Your task to perform on an android device: turn on notifications settings in the gmail app Image 0: 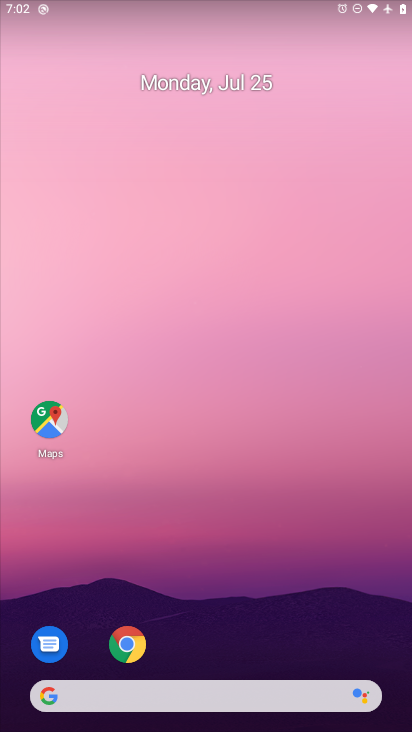
Step 0: press home button
Your task to perform on an android device: turn on notifications settings in the gmail app Image 1: 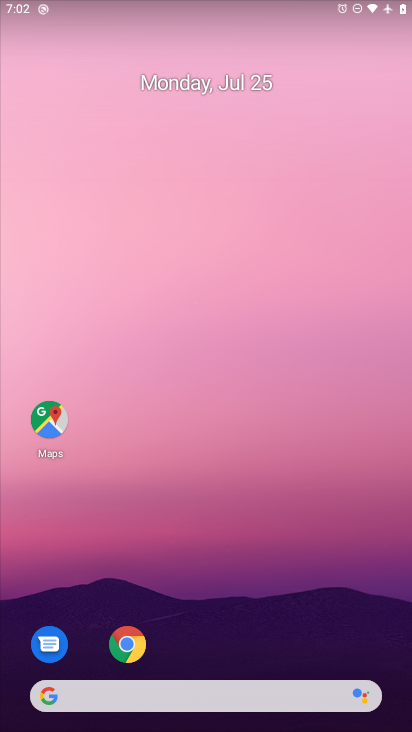
Step 1: drag from (246, 654) to (368, 113)
Your task to perform on an android device: turn on notifications settings in the gmail app Image 2: 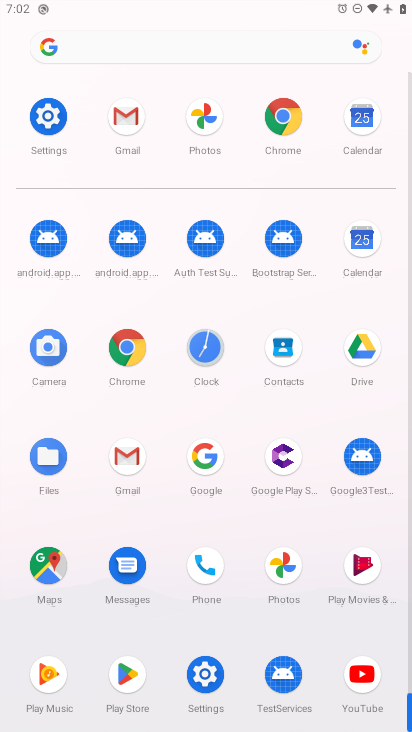
Step 2: click (118, 122)
Your task to perform on an android device: turn on notifications settings in the gmail app Image 3: 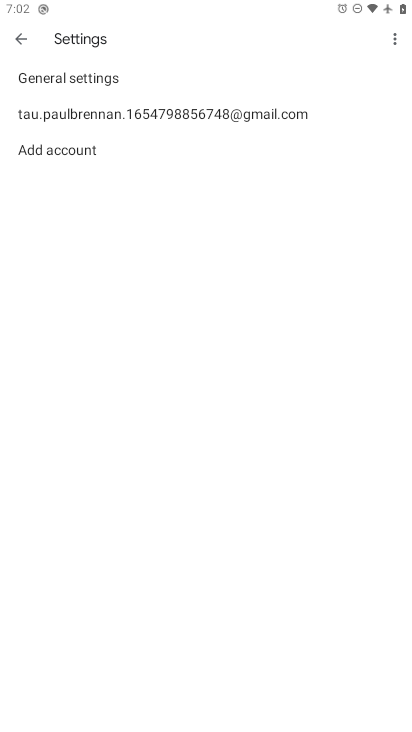
Step 3: click (60, 71)
Your task to perform on an android device: turn on notifications settings in the gmail app Image 4: 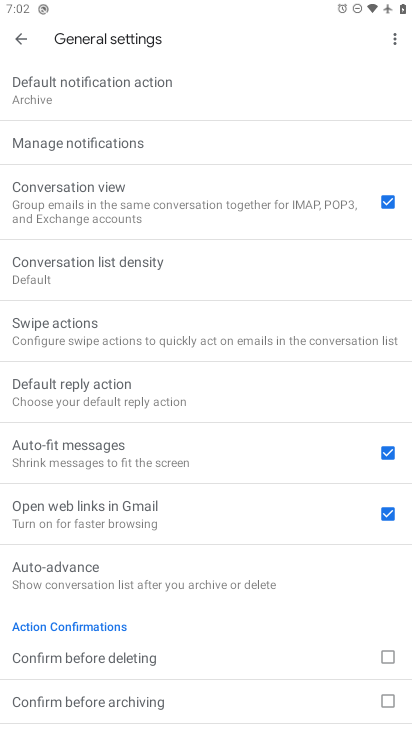
Step 4: click (87, 143)
Your task to perform on an android device: turn on notifications settings in the gmail app Image 5: 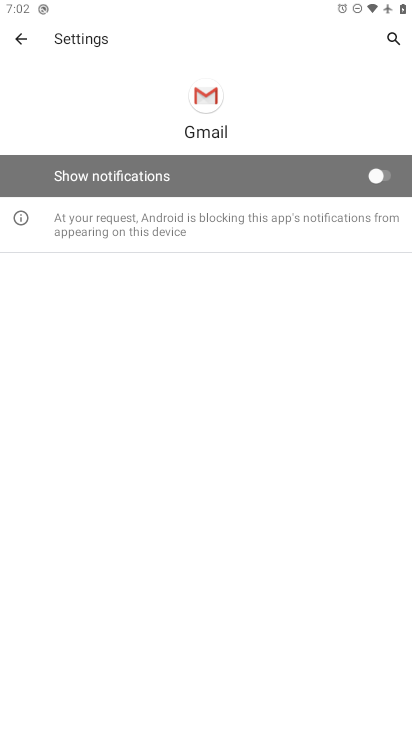
Step 5: click (378, 176)
Your task to perform on an android device: turn on notifications settings in the gmail app Image 6: 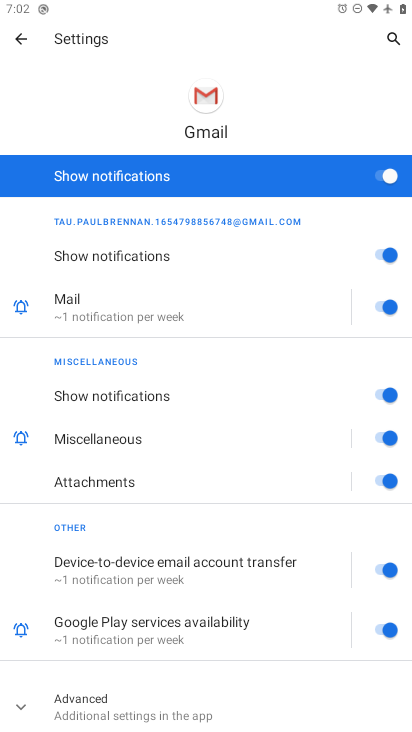
Step 6: task complete